Your task to perform on an android device: delete the emails in spam in the gmail app Image 0: 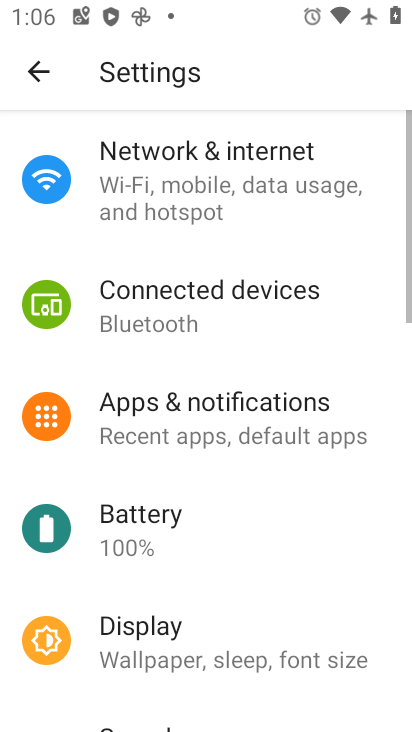
Step 0: press home button
Your task to perform on an android device: delete the emails in spam in the gmail app Image 1: 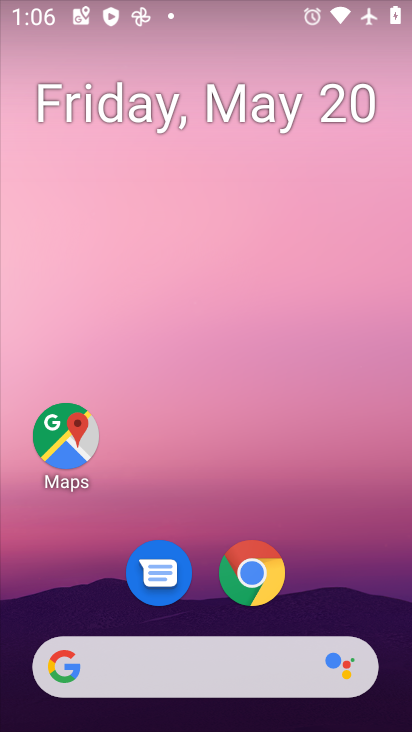
Step 1: drag from (327, 570) to (288, 110)
Your task to perform on an android device: delete the emails in spam in the gmail app Image 2: 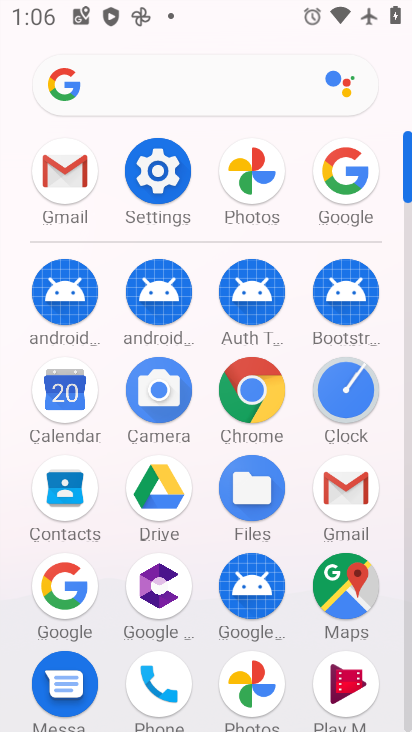
Step 2: click (63, 173)
Your task to perform on an android device: delete the emails in spam in the gmail app Image 3: 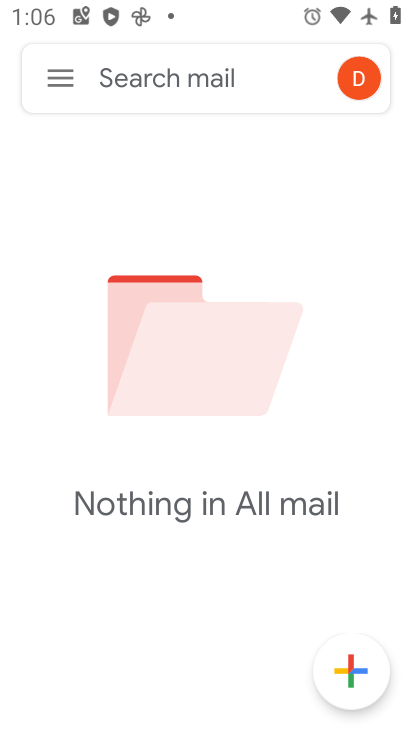
Step 3: click (52, 81)
Your task to perform on an android device: delete the emails in spam in the gmail app Image 4: 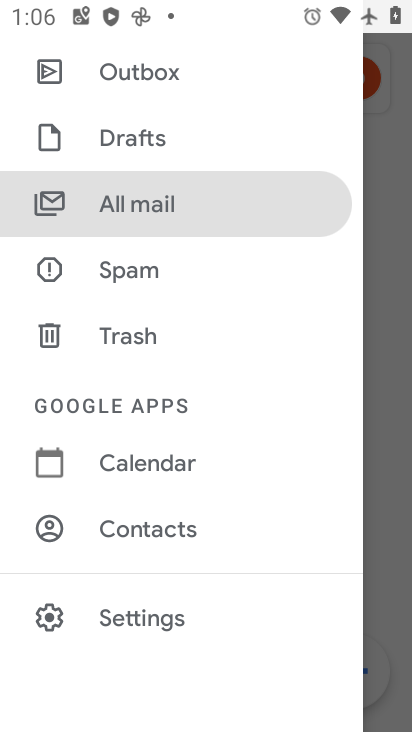
Step 4: click (136, 269)
Your task to perform on an android device: delete the emails in spam in the gmail app Image 5: 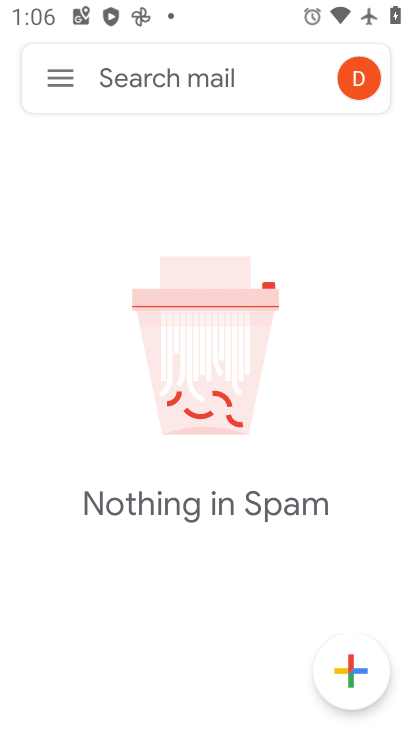
Step 5: task complete